Your task to perform on an android device: uninstall "Reddit" Image 0: 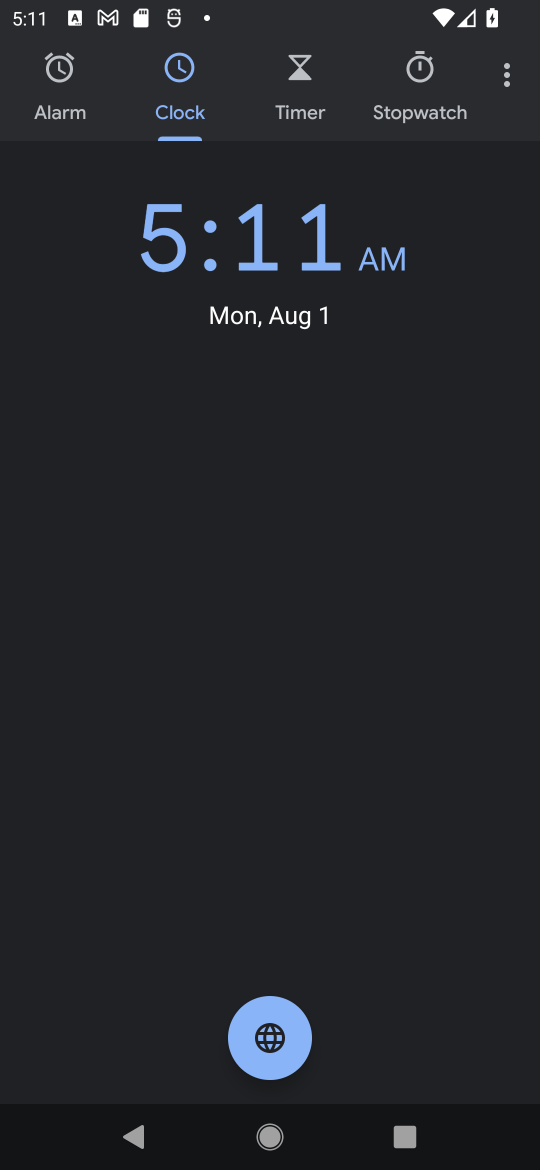
Step 0: press home button
Your task to perform on an android device: uninstall "Reddit" Image 1: 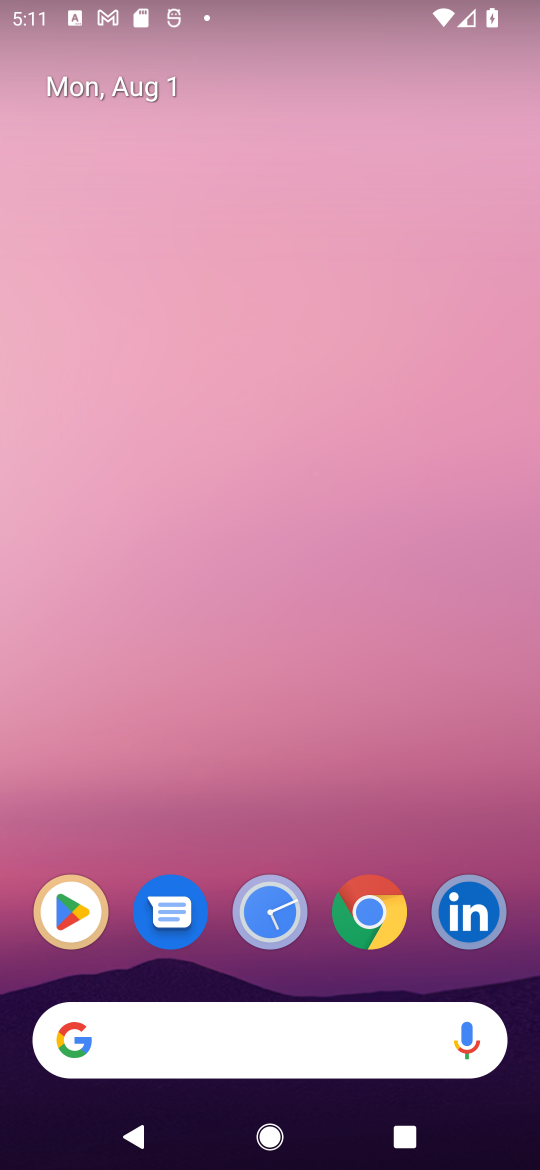
Step 1: click (83, 913)
Your task to perform on an android device: uninstall "Reddit" Image 2: 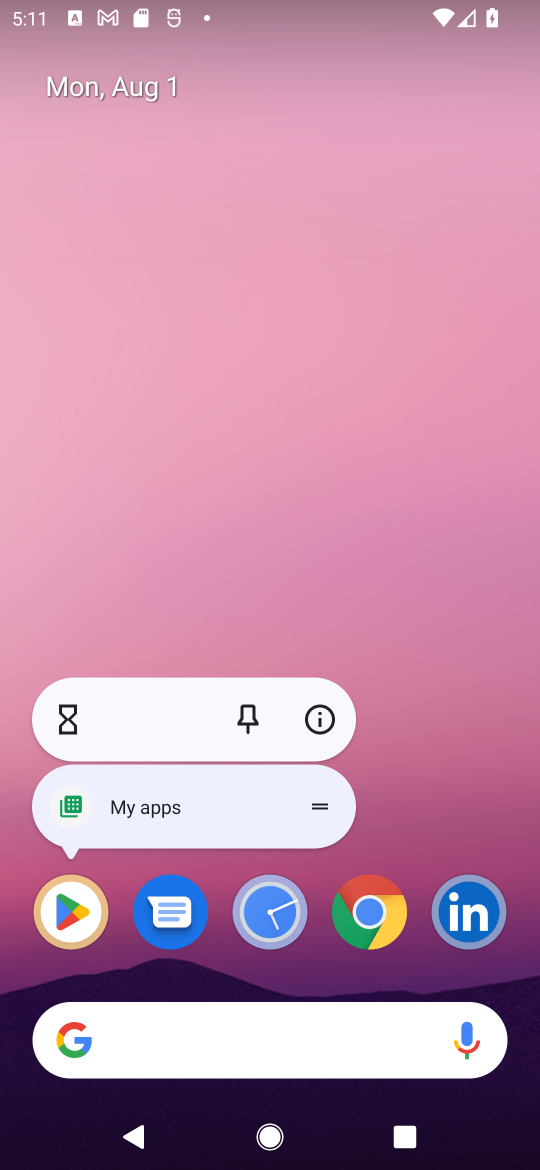
Step 2: click (74, 920)
Your task to perform on an android device: uninstall "Reddit" Image 3: 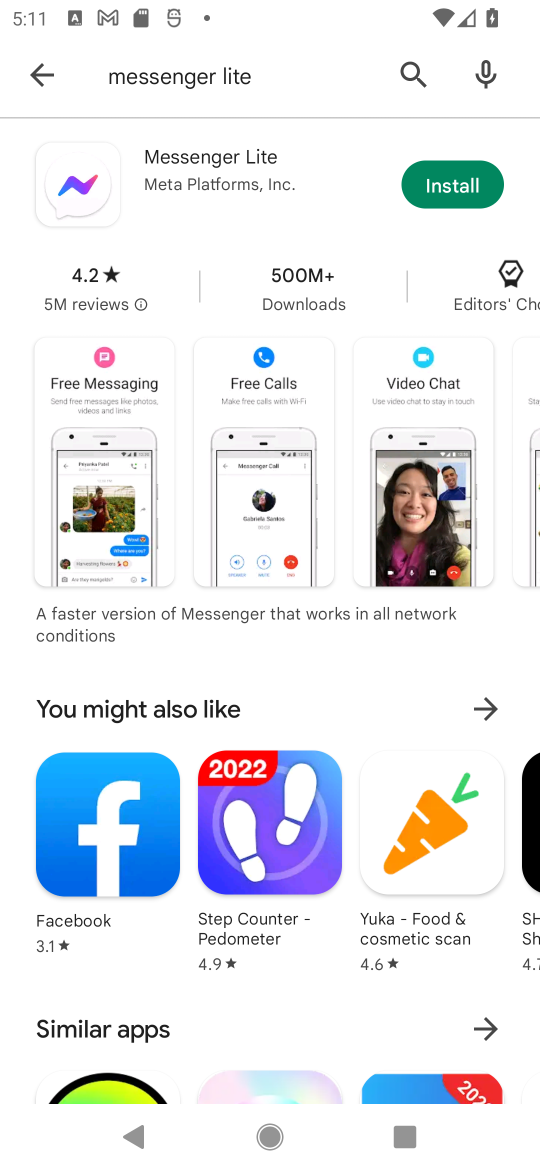
Step 3: click (408, 82)
Your task to perform on an android device: uninstall "Reddit" Image 4: 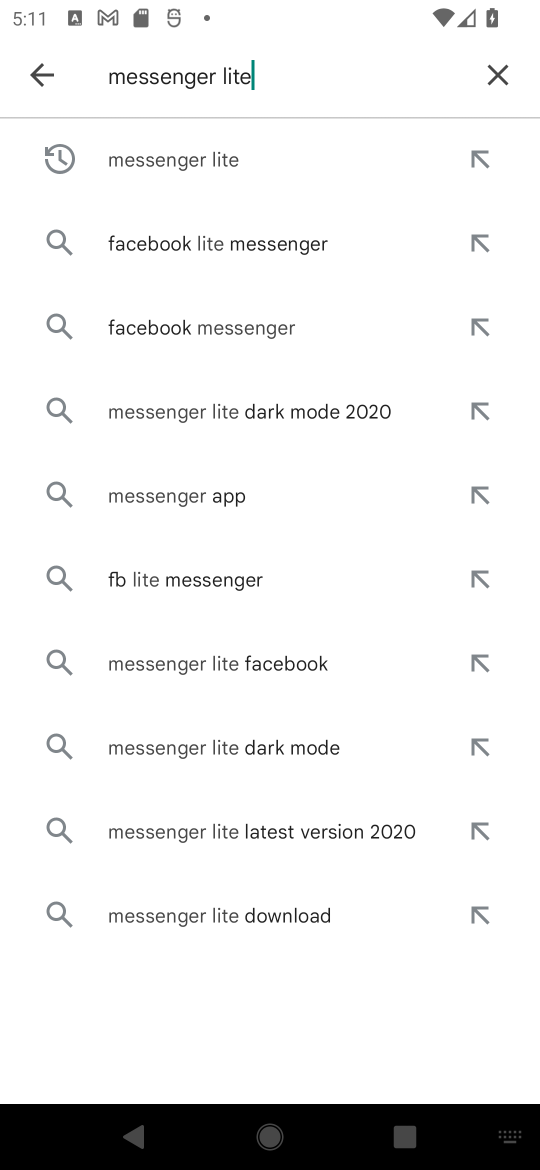
Step 4: click (495, 84)
Your task to perform on an android device: uninstall "Reddit" Image 5: 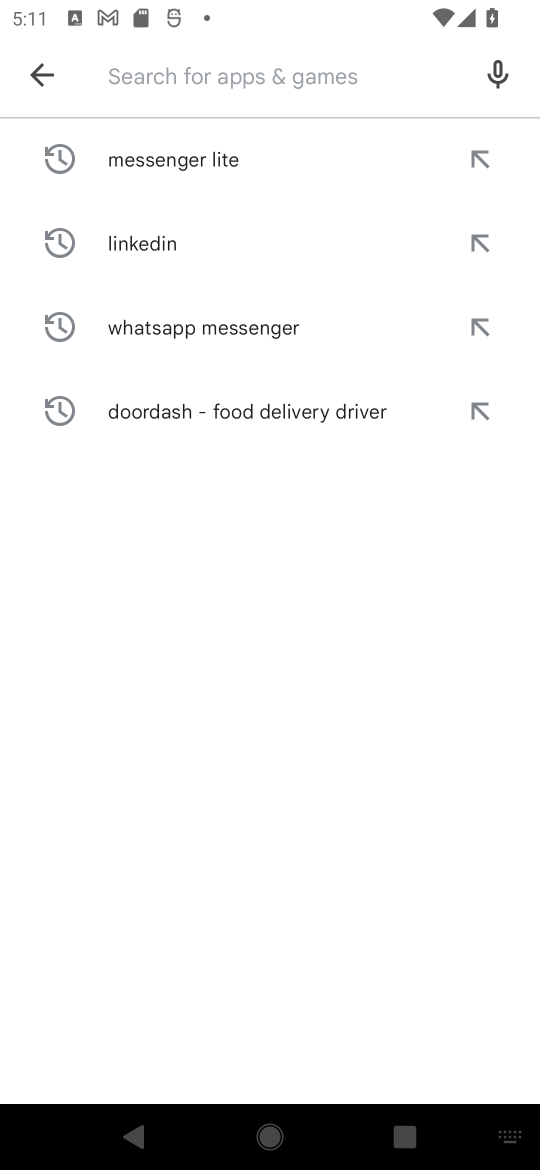
Step 5: type "Reddit"
Your task to perform on an android device: uninstall "Reddit" Image 6: 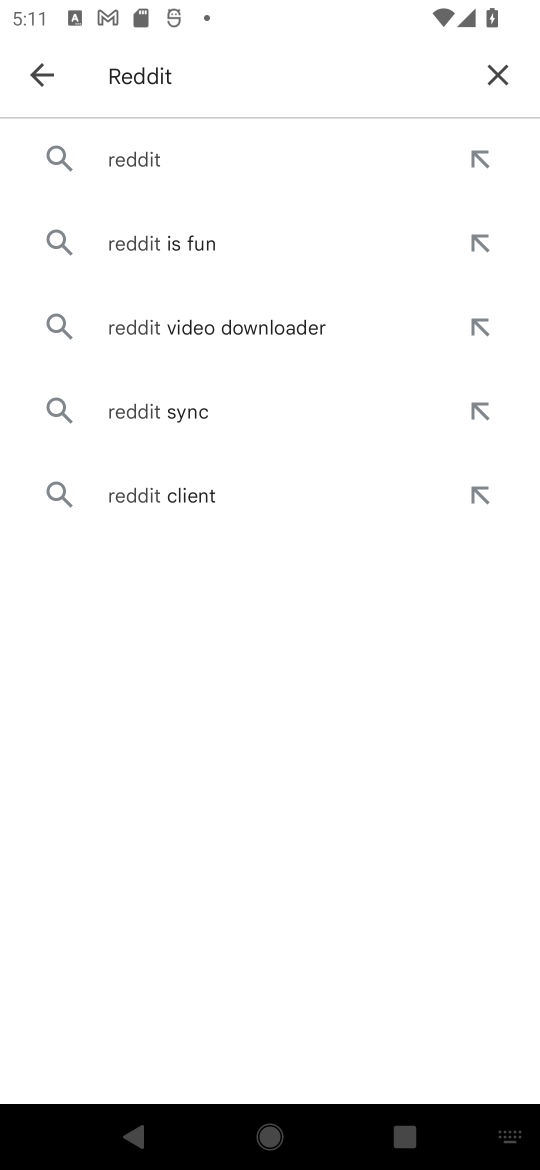
Step 6: click (143, 176)
Your task to perform on an android device: uninstall "Reddit" Image 7: 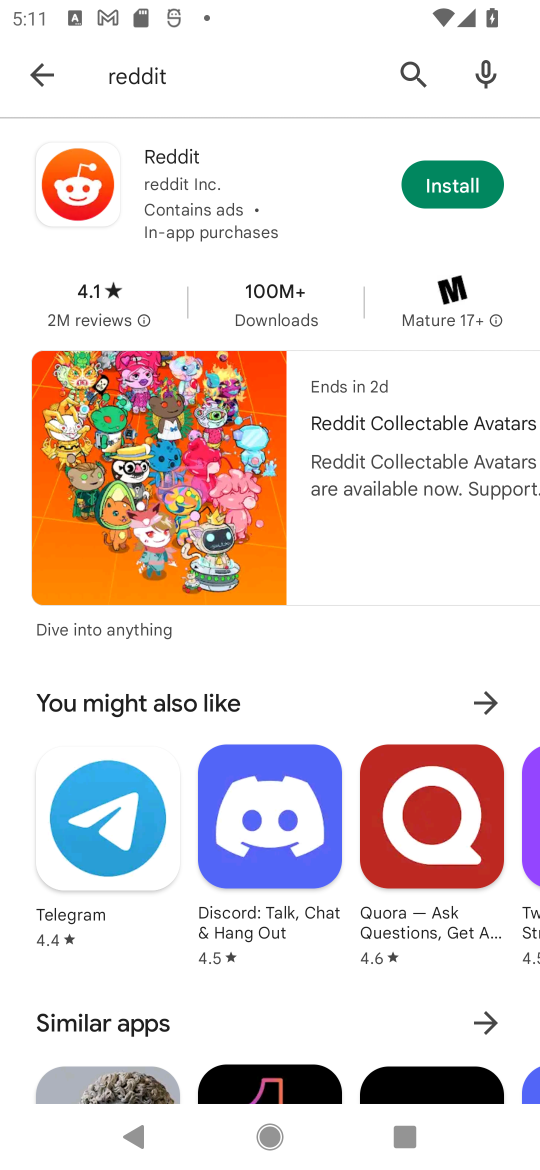
Step 7: task complete